Your task to perform on an android device: Search for seafood restaurants on Google Maps Image 0: 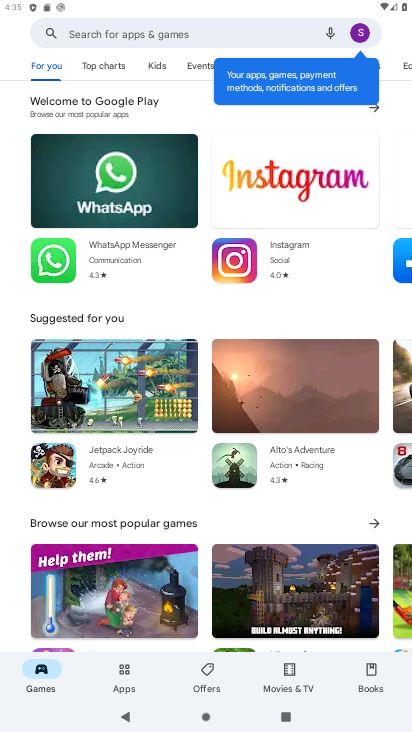
Step 0: press home button
Your task to perform on an android device: Search for seafood restaurants on Google Maps Image 1: 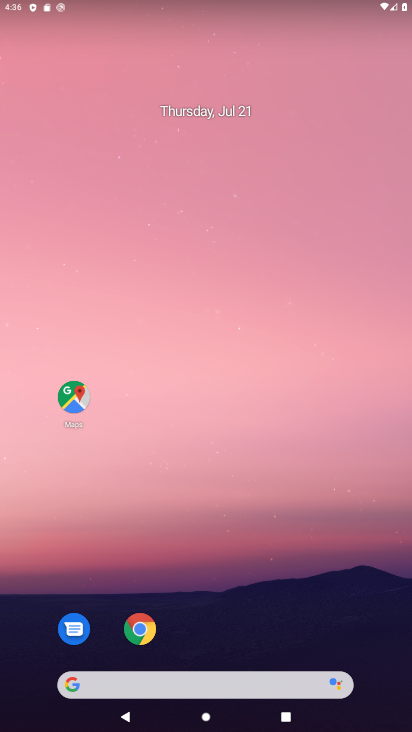
Step 1: click (75, 391)
Your task to perform on an android device: Search for seafood restaurants on Google Maps Image 2: 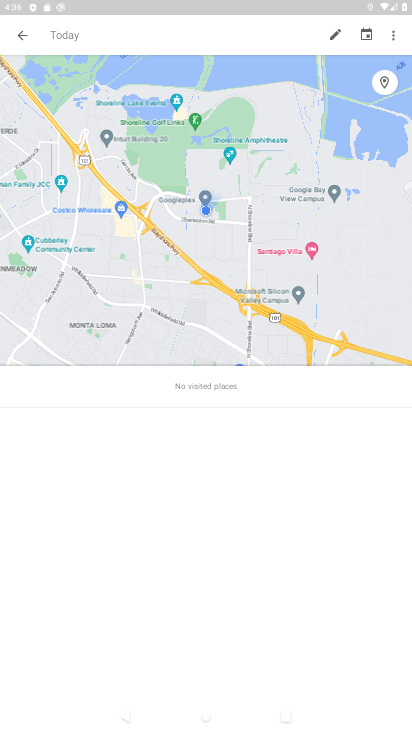
Step 2: click (26, 37)
Your task to perform on an android device: Search for seafood restaurants on Google Maps Image 3: 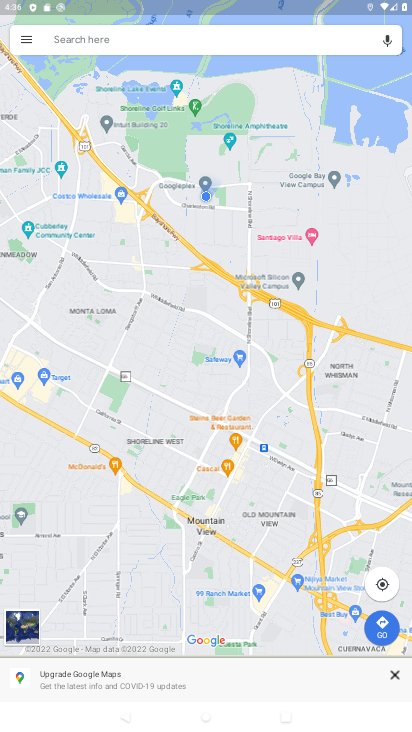
Step 3: click (107, 37)
Your task to perform on an android device: Search for seafood restaurants on Google Maps Image 4: 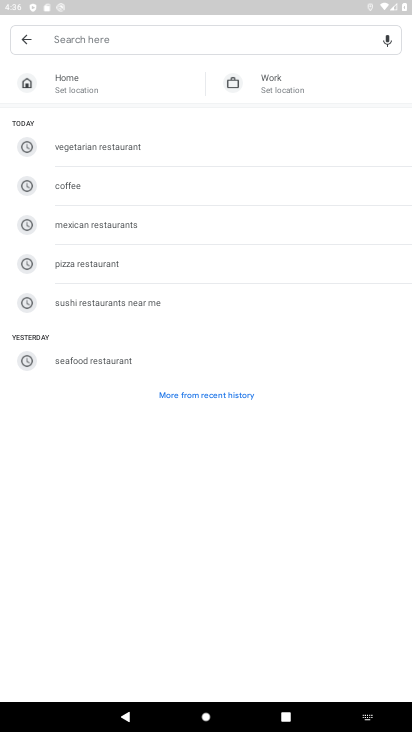
Step 4: click (105, 360)
Your task to perform on an android device: Search for seafood restaurants on Google Maps Image 5: 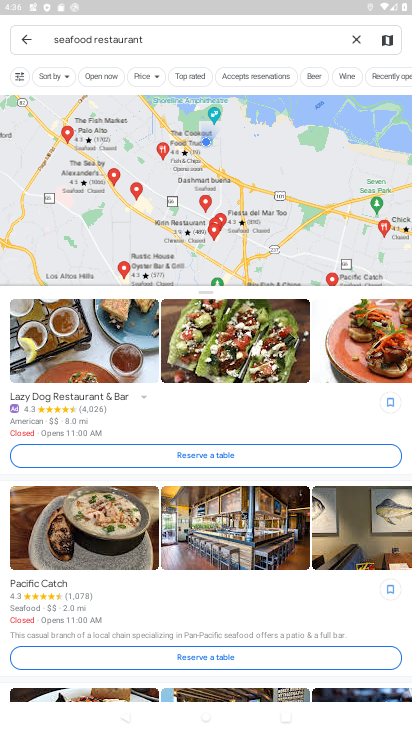
Step 5: task complete